Your task to perform on an android device: find which apps use the phone's location Image 0: 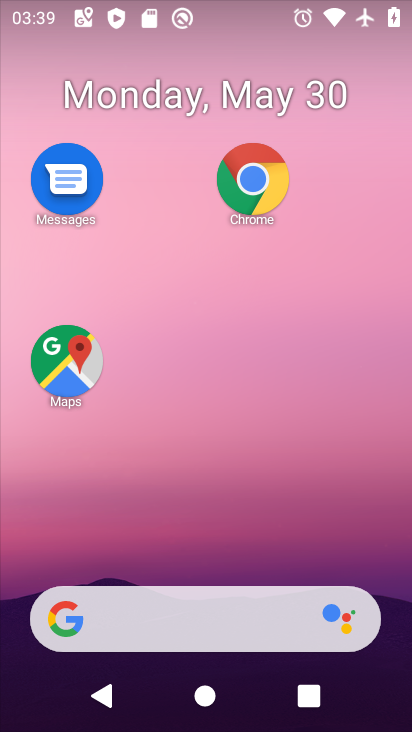
Step 0: drag from (207, 526) to (302, 10)
Your task to perform on an android device: find which apps use the phone's location Image 1: 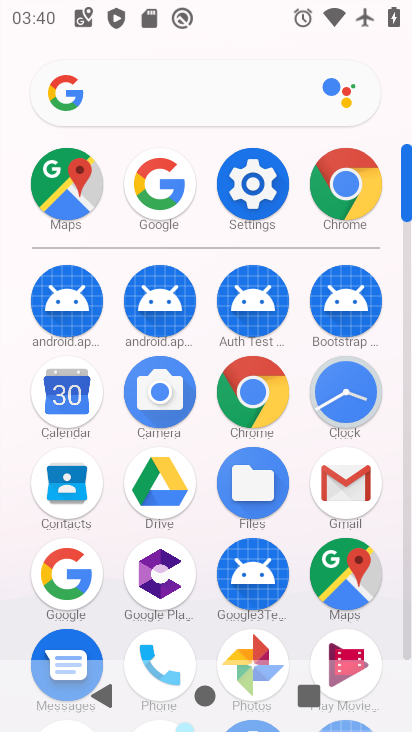
Step 1: click (251, 183)
Your task to perform on an android device: find which apps use the phone's location Image 2: 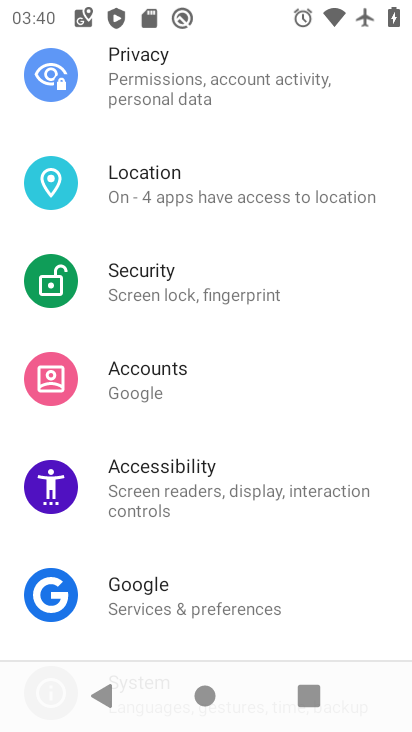
Step 2: click (213, 194)
Your task to perform on an android device: find which apps use the phone's location Image 3: 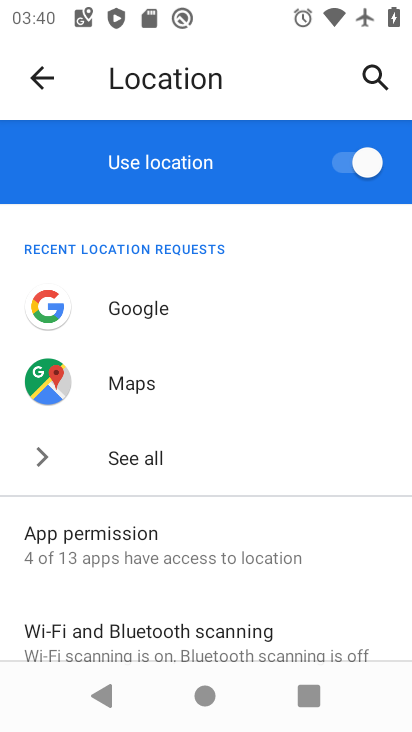
Step 3: click (130, 550)
Your task to perform on an android device: find which apps use the phone's location Image 4: 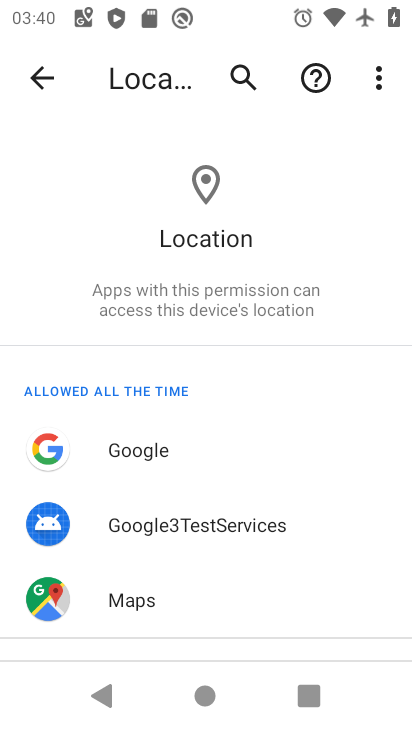
Step 4: task complete